Your task to perform on an android device: turn off location history Image 0: 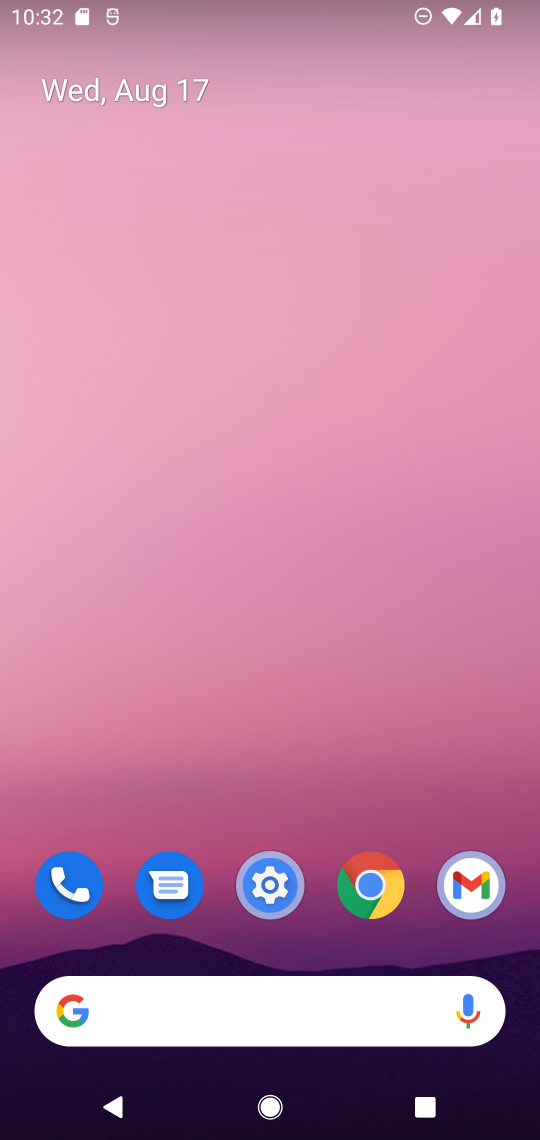
Step 0: drag from (388, 598) to (368, 136)
Your task to perform on an android device: turn off location history Image 1: 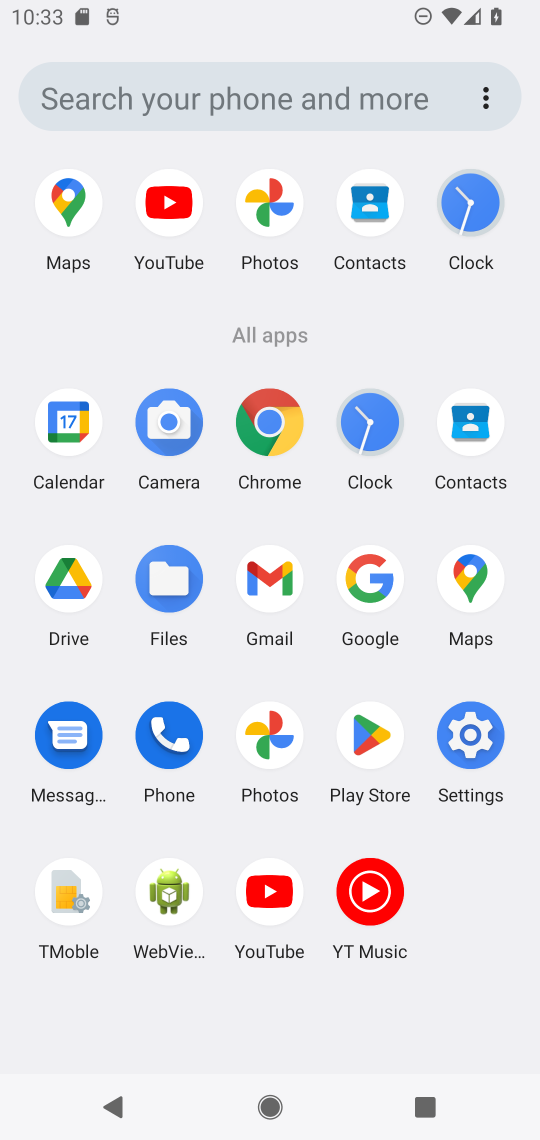
Step 1: click (469, 571)
Your task to perform on an android device: turn off location history Image 2: 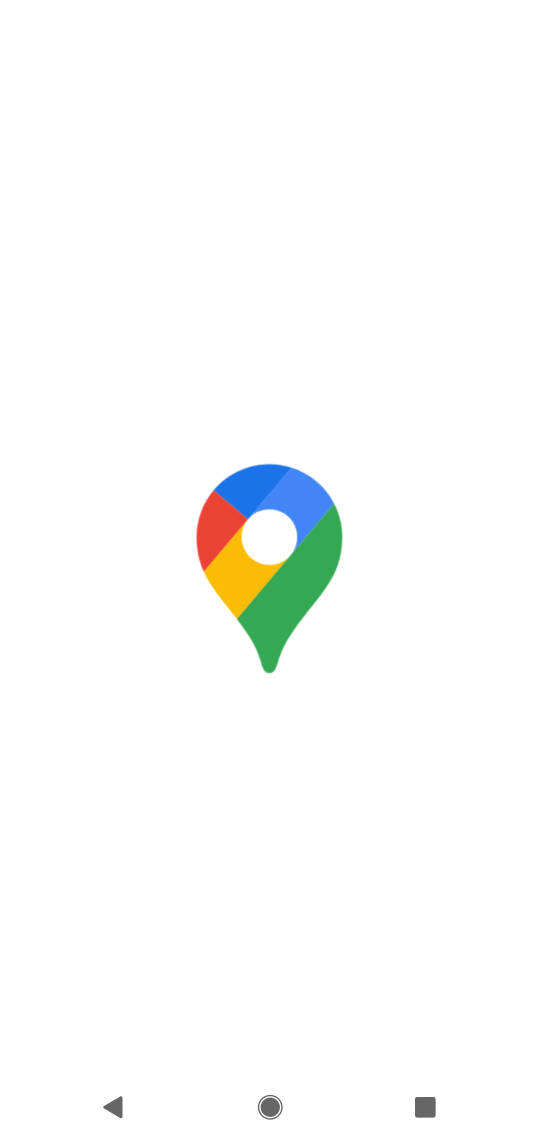
Step 2: task complete